Your task to perform on an android device: check data usage Image 0: 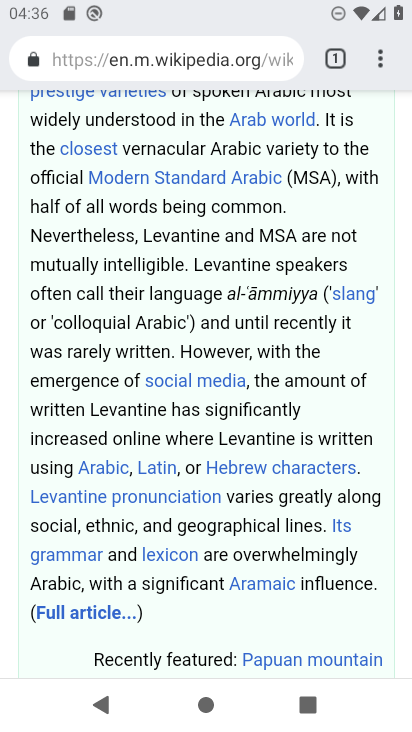
Step 0: press home button
Your task to perform on an android device: check data usage Image 1: 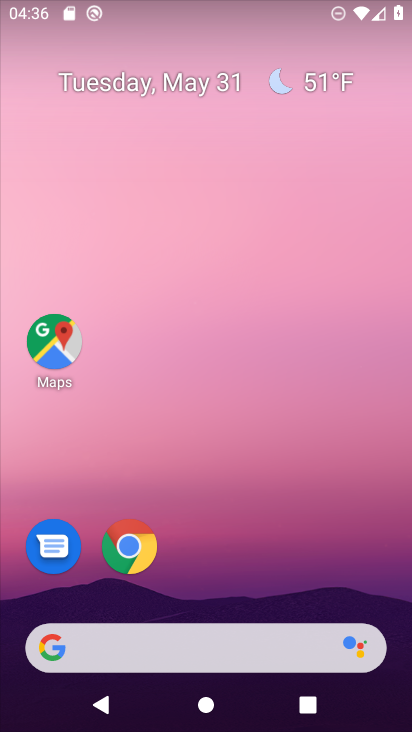
Step 1: drag from (212, 596) to (188, 239)
Your task to perform on an android device: check data usage Image 2: 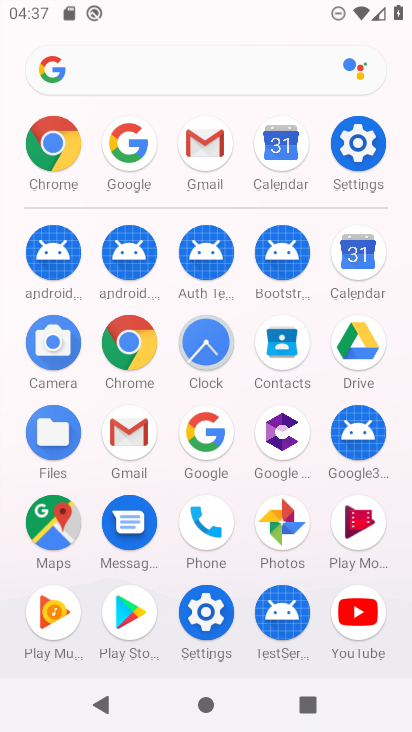
Step 2: click (357, 162)
Your task to perform on an android device: check data usage Image 3: 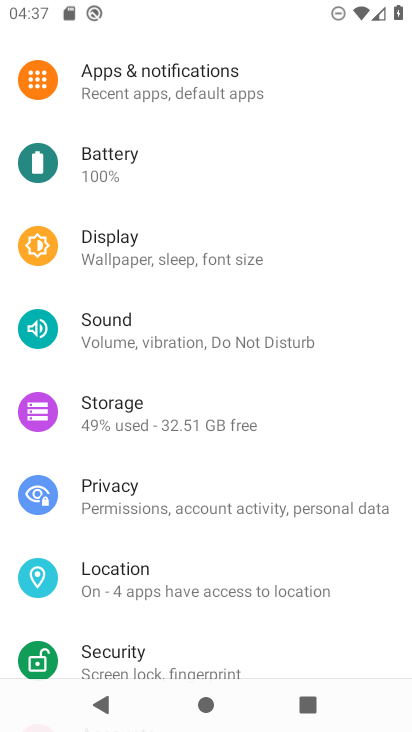
Step 3: drag from (164, 228) to (147, 538)
Your task to perform on an android device: check data usage Image 4: 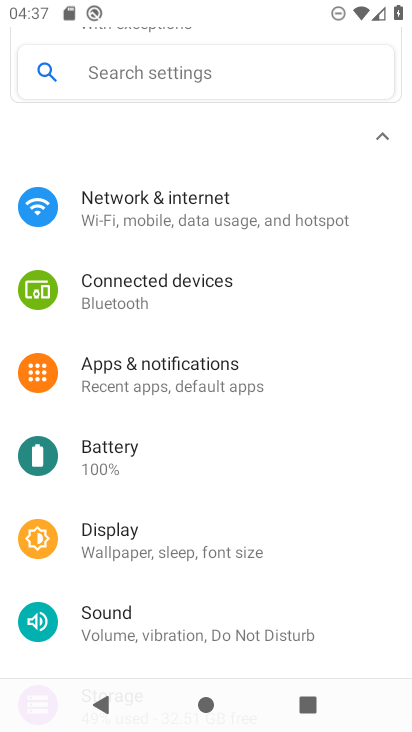
Step 4: drag from (171, 278) to (164, 534)
Your task to perform on an android device: check data usage Image 5: 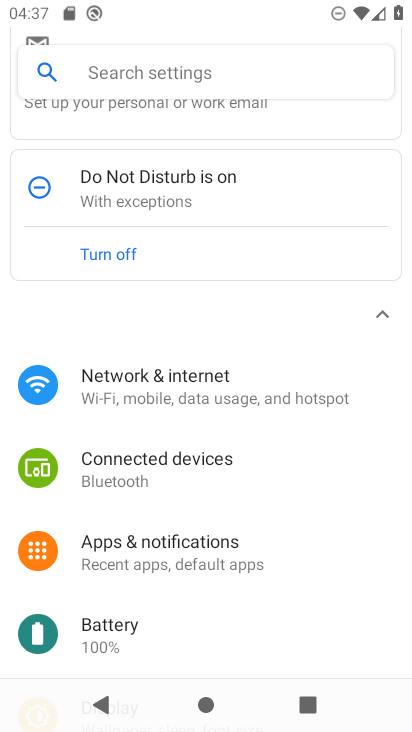
Step 5: click (136, 400)
Your task to perform on an android device: check data usage Image 6: 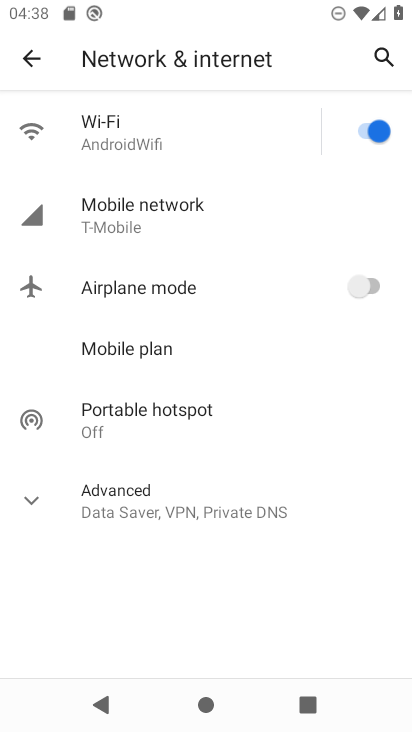
Step 6: click (139, 226)
Your task to perform on an android device: check data usage Image 7: 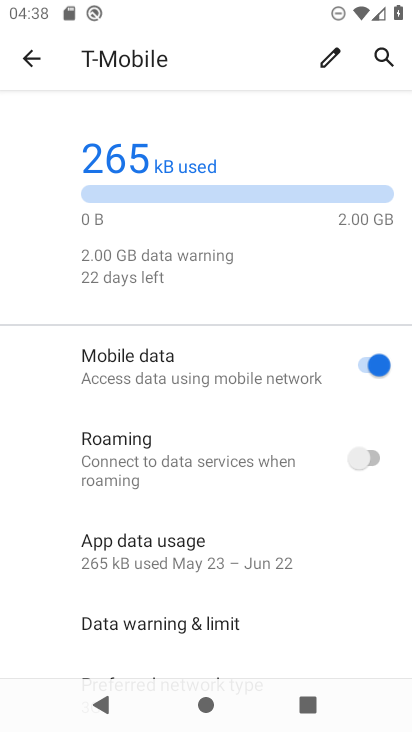
Step 7: task complete